Your task to perform on an android device: Clear all items from cart on target.com. Search for "razer blade" on target.com, select the first entry, and add it to the cart. Image 0: 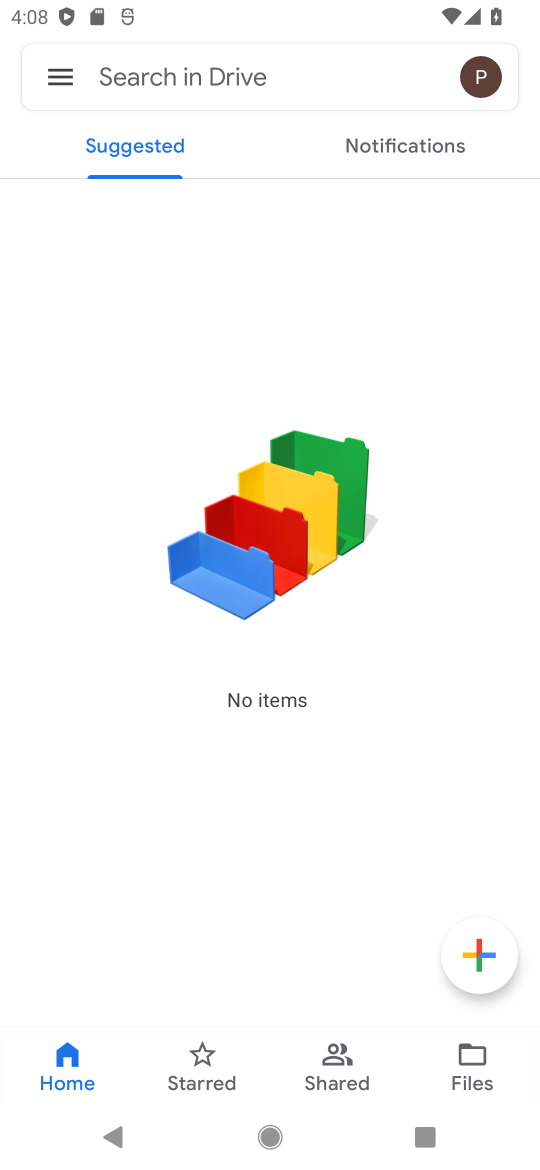
Step 0: press home button
Your task to perform on an android device: Clear all items from cart on target.com. Search for "razer blade" on target.com, select the first entry, and add it to the cart. Image 1: 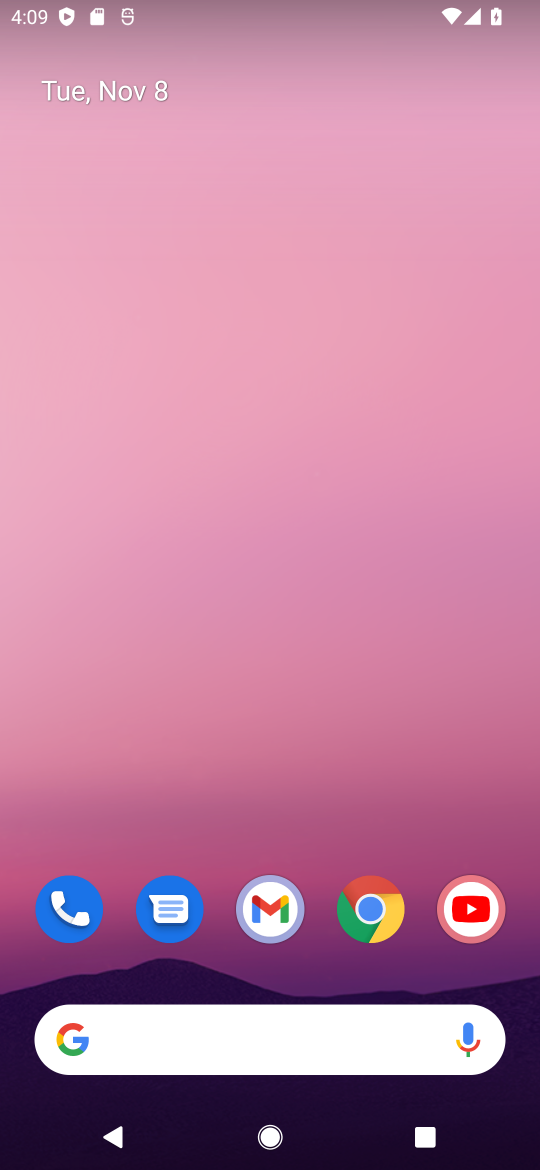
Step 1: click (376, 911)
Your task to perform on an android device: Clear all items from cart on target.com. Search for "razer blade" on target.com, select the first entry, and add it to the cart. Image 2: 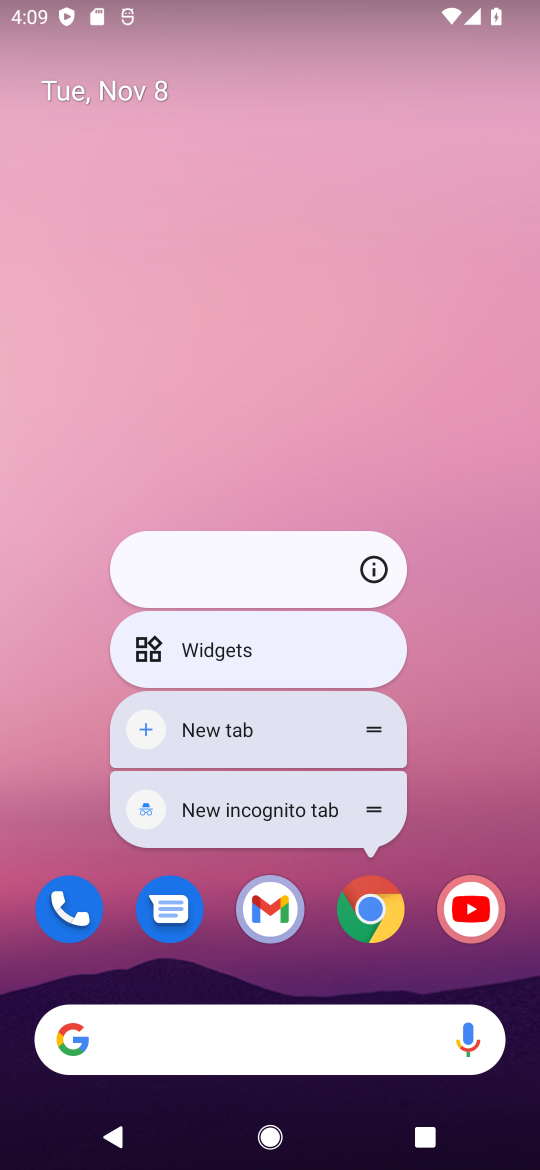
Step 2: click (376, 910)
Your task to perform on an android device: Clear all items from cart on target.com. Search for "razer blade" on target.com, select the first entry, and add it to the cart. Image 3: 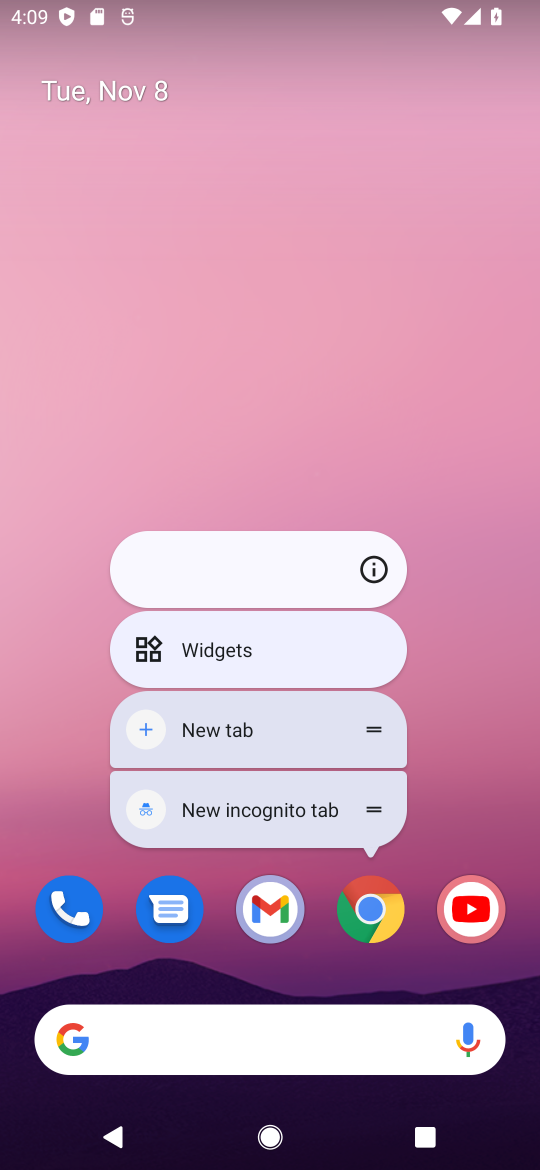
Step 3: click (376, 910)
Your task to perform on an android device: Clear all items from cart on target.com. Search for "razer blade" on target.com, select the first entry, and add it to the cart. Image 4: 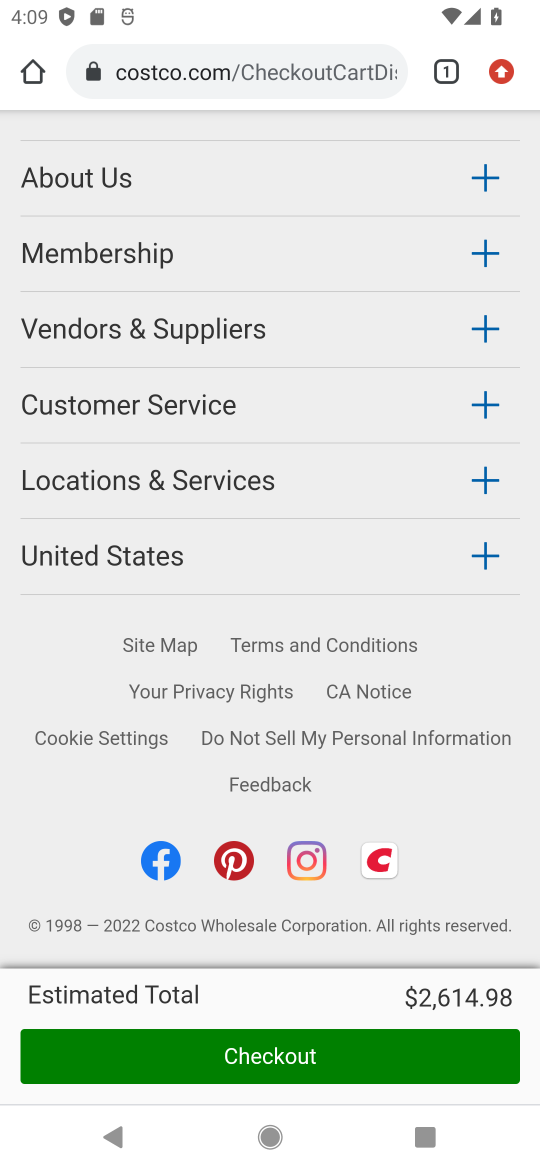
Step 4: click (285, 70)
Your task to perform on an android device: Clear all items from cart on target.com. Search for "razer blade" on target.com, select the first entry, and add it to the cart. Image 5: 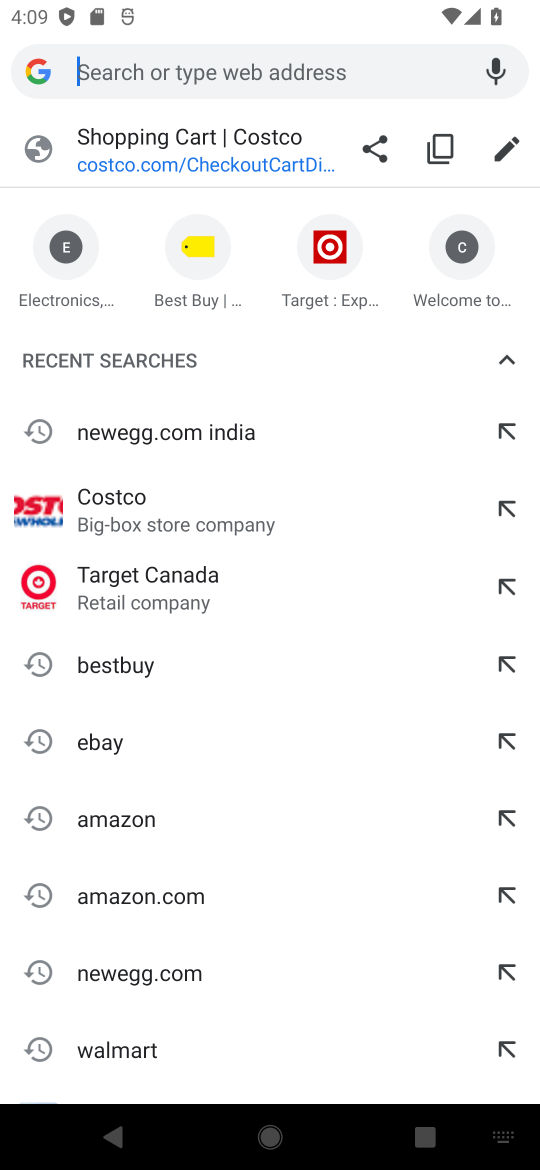
Step 5: click (323, 242)
Your task to perform on an android device: Clear all items from cart on target.com. Search for "razer blade" on target.com, select the first entry, and add it to the cart. Image 6: 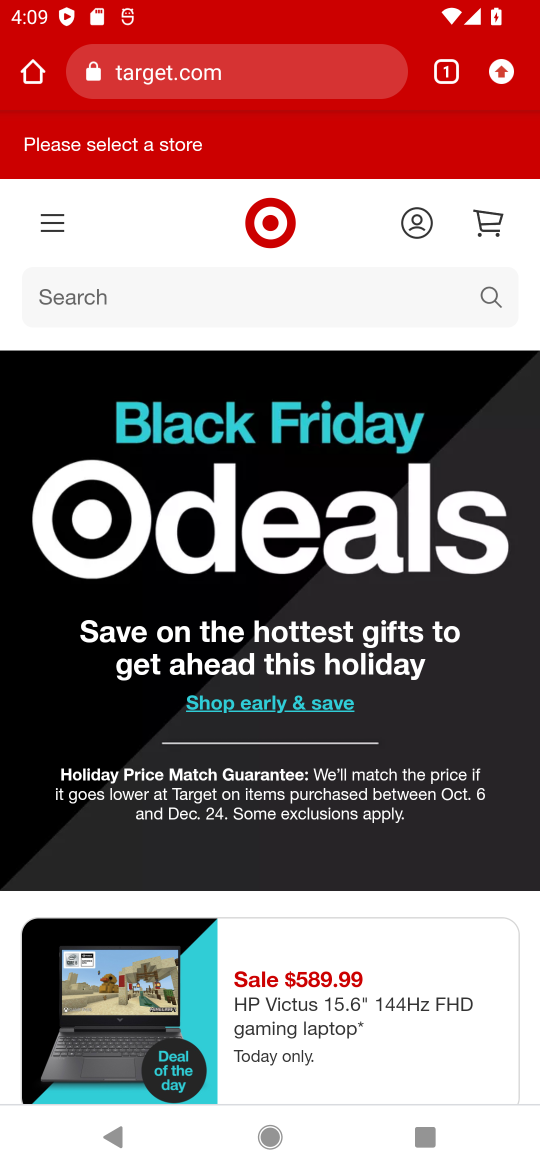
Step 6: click (114, 296)
Your task to perform on an android device: Clear all items from cart on target.com. Search for "razer blade" on target.com, select the first entry, and add it to the cart. Image 7: 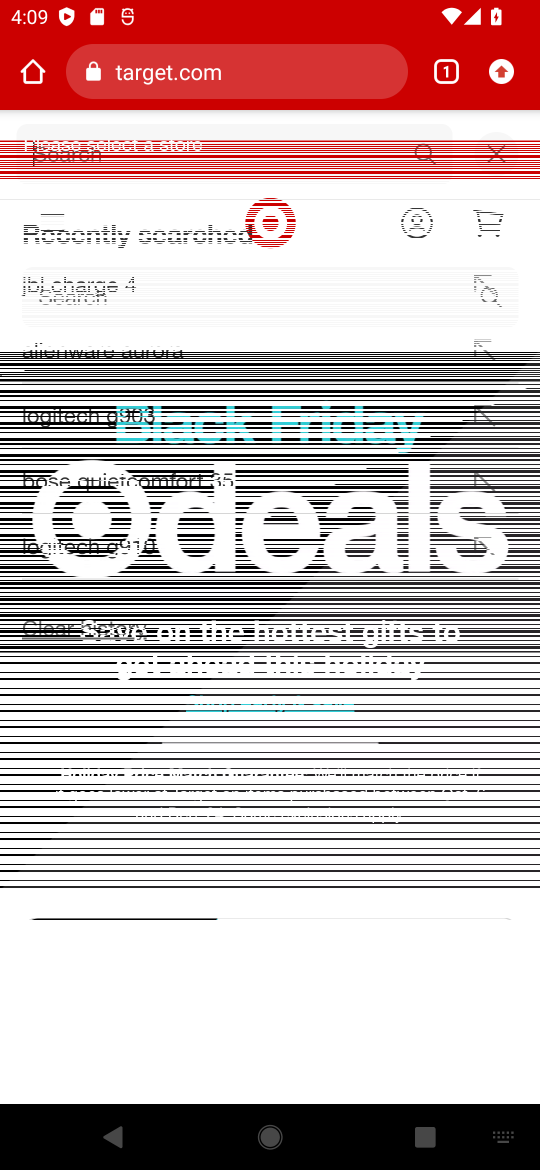
Step 7: click (171, 156)
Your task to perform on an android device: Clear all items from cart on target.com. Search for "razer blade" on target.com, select the first entry, and add it to the cart. Image 8: 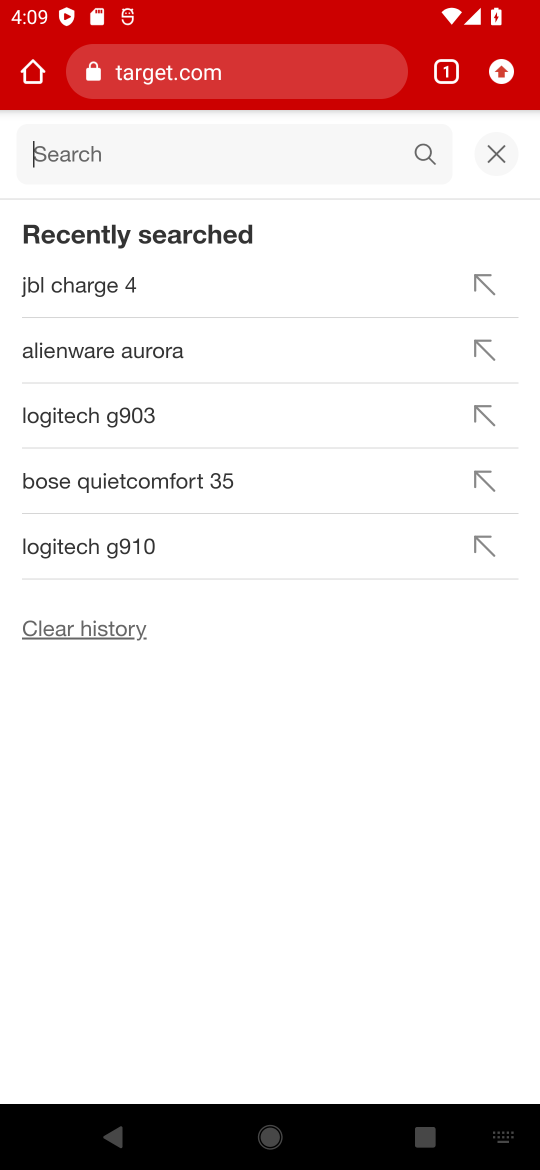
Step 8: type "razer blade"
Your task to perform on an android device: Clear all items from cart on target.com. Search for "razer blade" on target.com, select the first entry, and add it to the cart. Image 9: 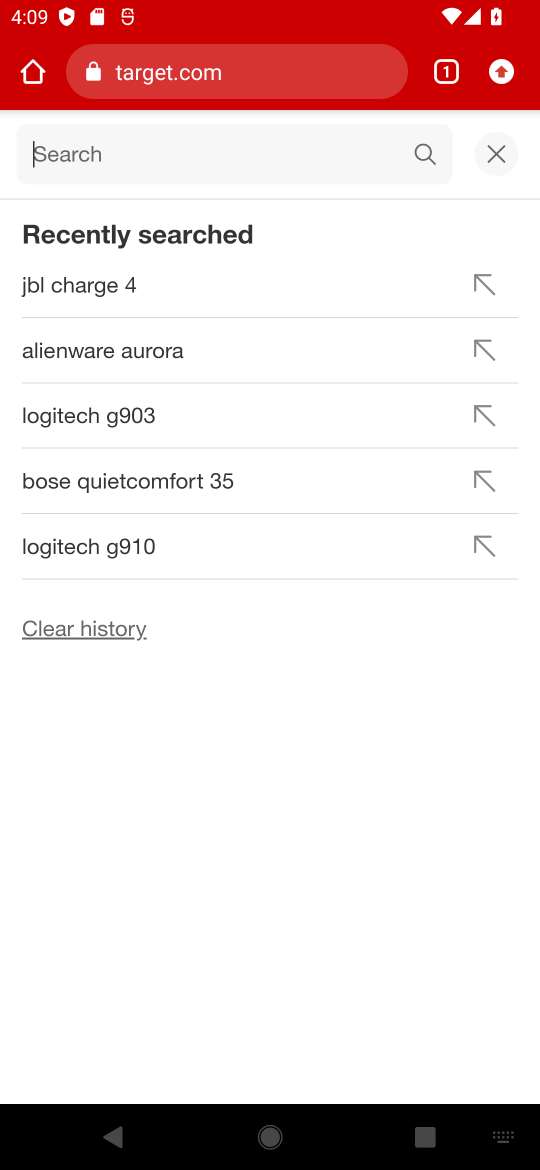
Step 9: press enter
Your task to perform on an android device: Clear all items from cart on target.com. Search for "razer blade" on target.com, select the first entry, and add it to the cart. Image 10: 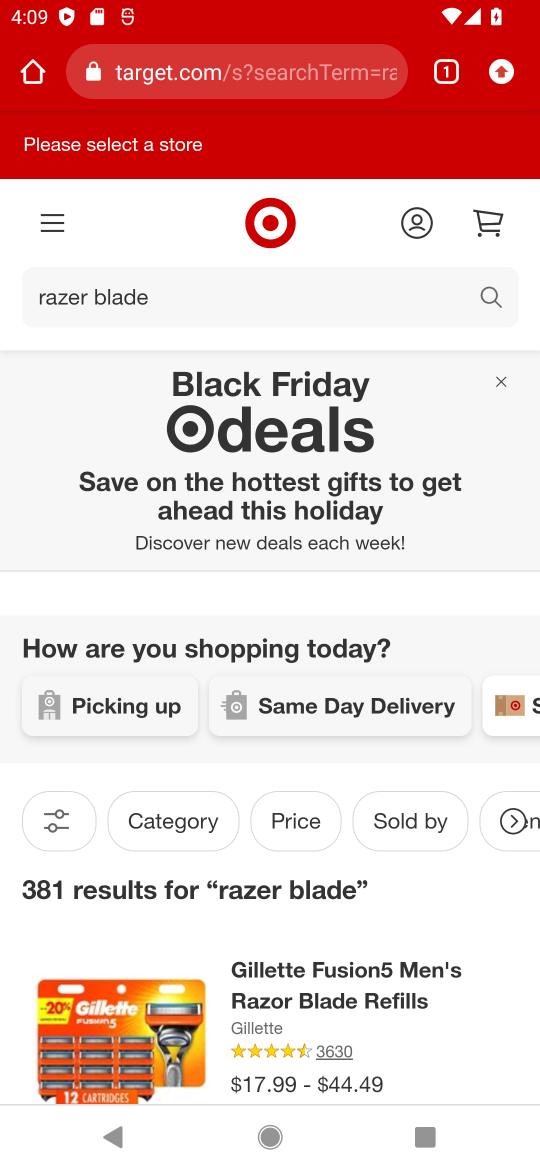
Step 10: drag from (312, 884) to (383, 646)
Your task to perform on an android device: Clear all items from cart on target.com. Search for "razer blade" on target.com, select the first entry, and add it to the cart. Image 11: 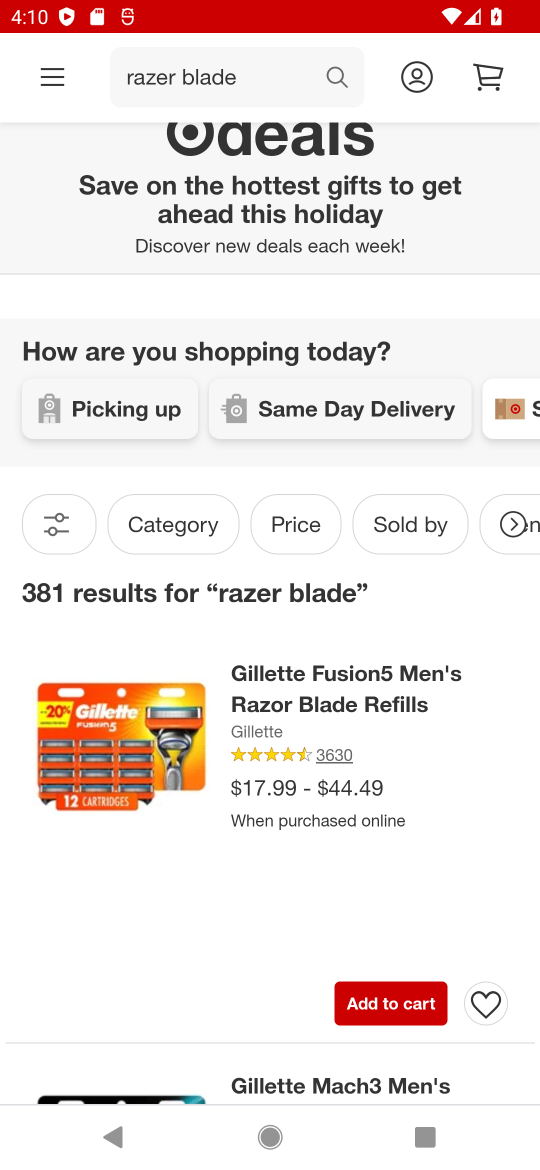
Step 11: click (379, 997)
Your task to perform on an android device: Clear all items from cart on target.com. Search for "razer blade" on target.com, select the first entry, and add it to the cart. Image 12: 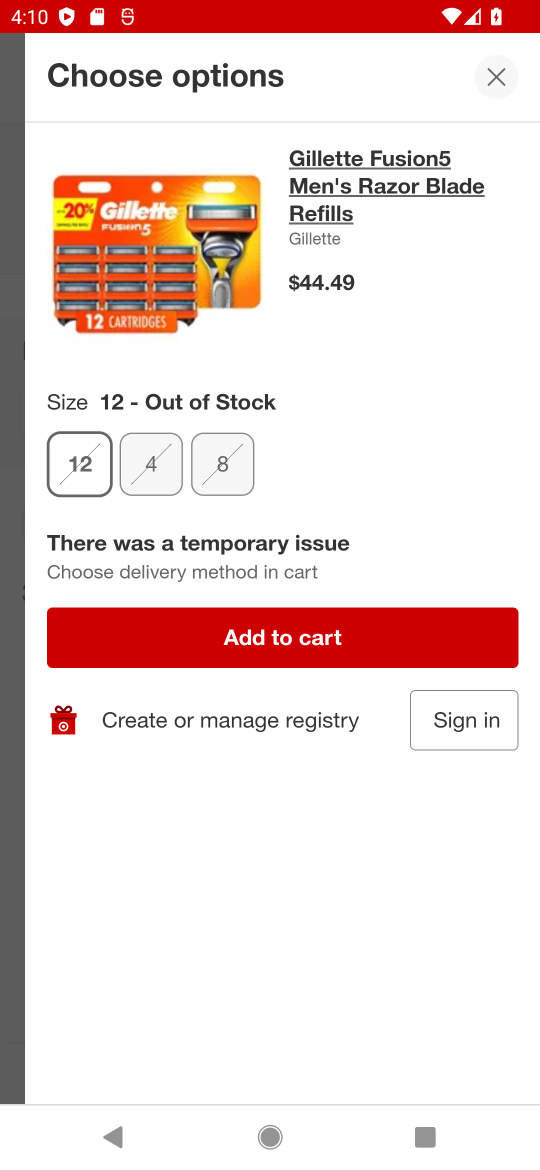
Step 12: click (294, 633)
Your task to perform on an android device: Clear all items from cart on target.com. Search for "razer blade" on target.com, select the first entry, and add it to the cart. Image 13: 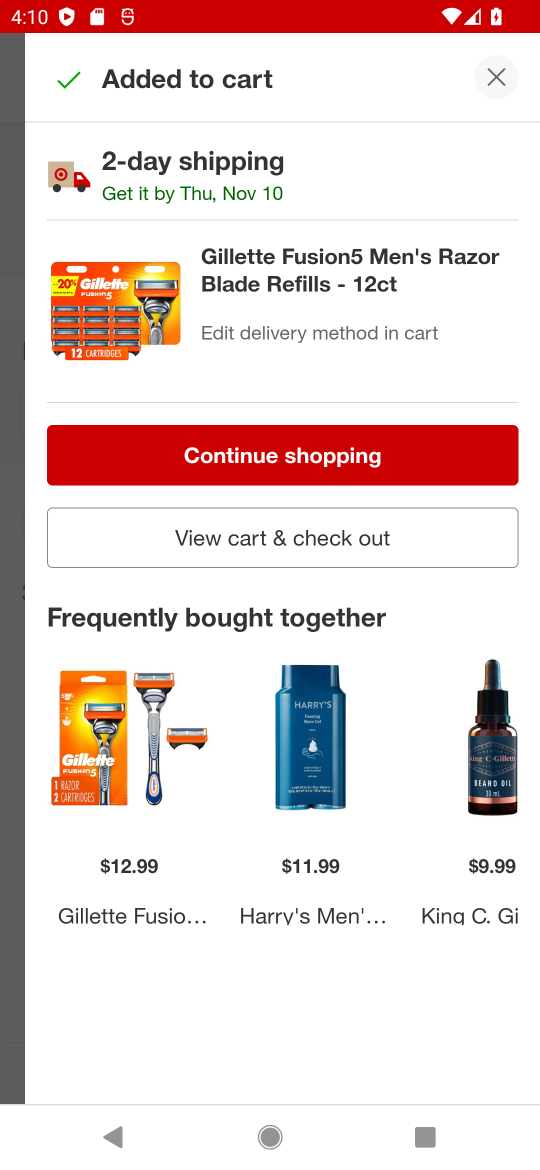
Step 13: click (292, 532)
Your task to perform on an android device: Clear all items from cart on target.com. Search for "razer blade" on target.com, select the first entry, and add it to the cart. Image 14: 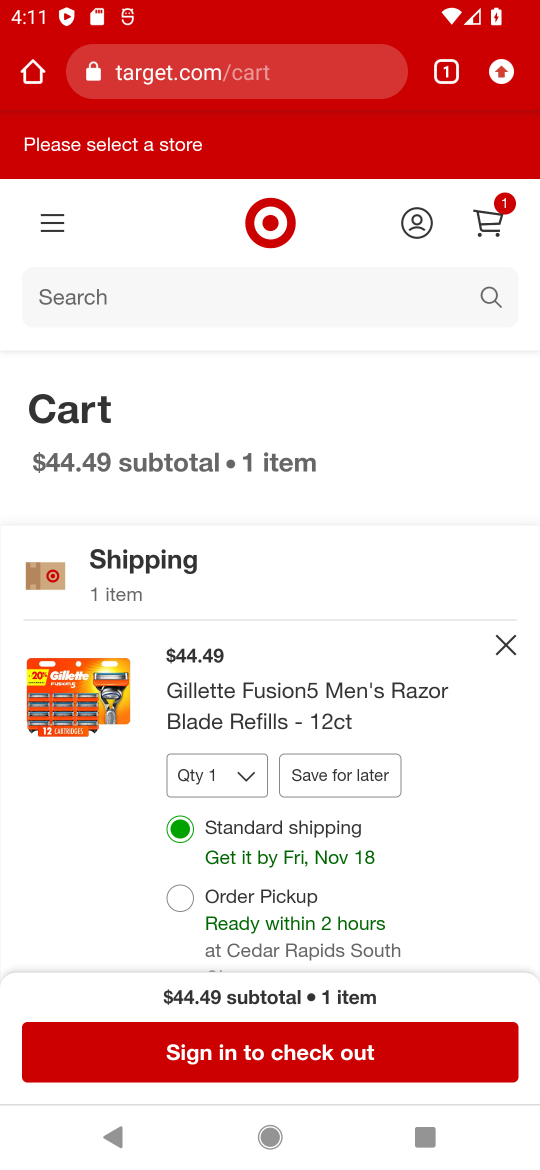
Step 14: task complete